Your task to perform on an android device: open a bookmark in the chrome app Image 0: 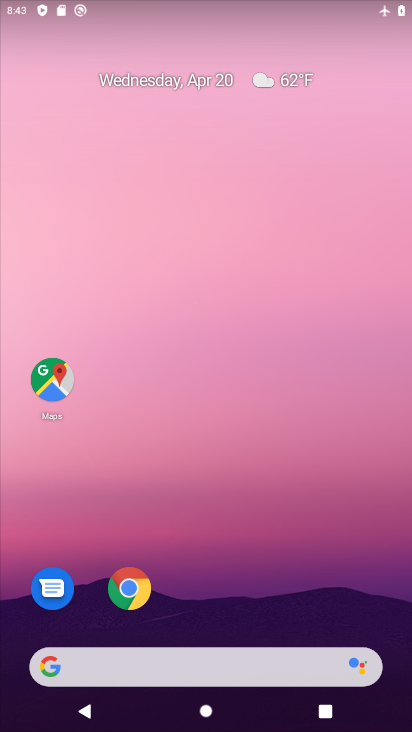
Step 0: drag from (298, 551) to (138, 0)
Your task to perform on an android device: open a bookmark in the chrome app Image 1: 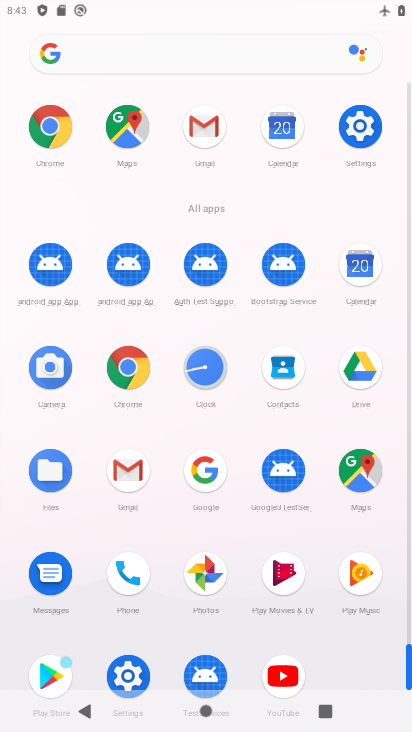
Step 1: drag from (0, 470) to (17, 289)
Your task to perform on an android device: open a bookmark in the chrome app Image 2: 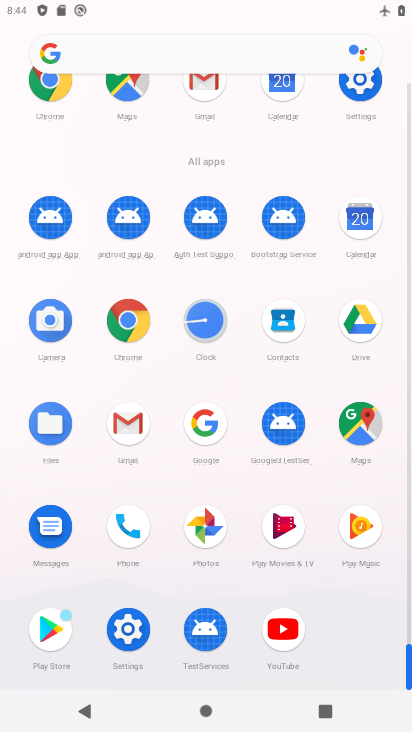
Step 2: click (129, 315)
Your task to perform on an android device: open a bookmark in the chrome app Image 3: 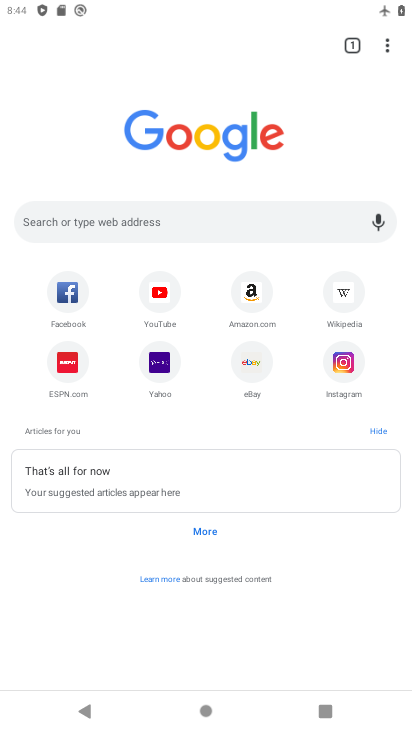
Step 3: drag from (387, 37) to (253, 167)
Your task to perform on an android device: open a bookmark in the chrome app Image 4: 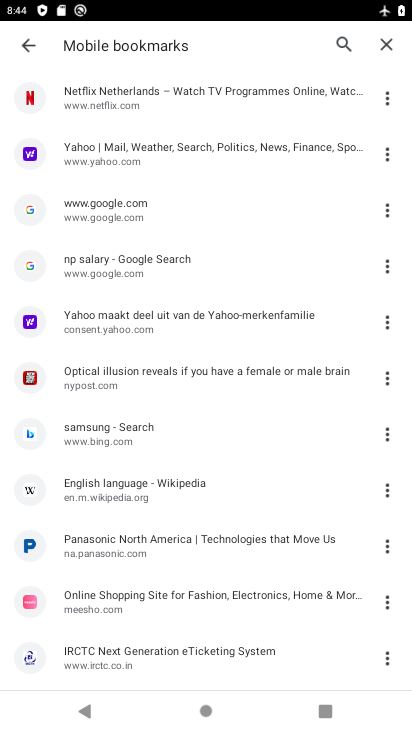
Step 4: click (123, 379)
Your task to perform on an android device: open a bookmark in the chrome app Image 5: 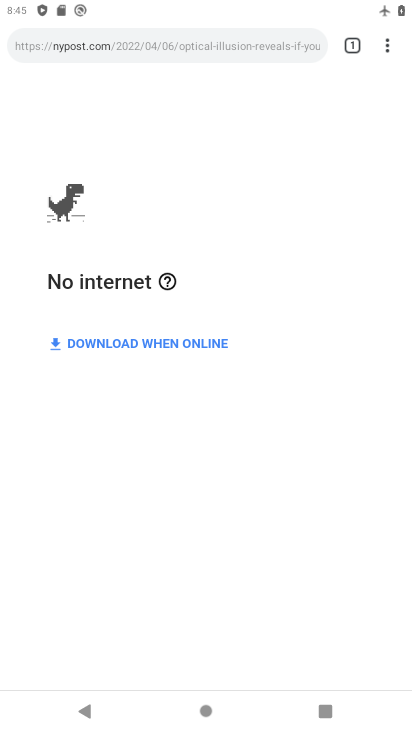
Step 5: task complete